Your task to perform on an android device: change timer sound Image 0: 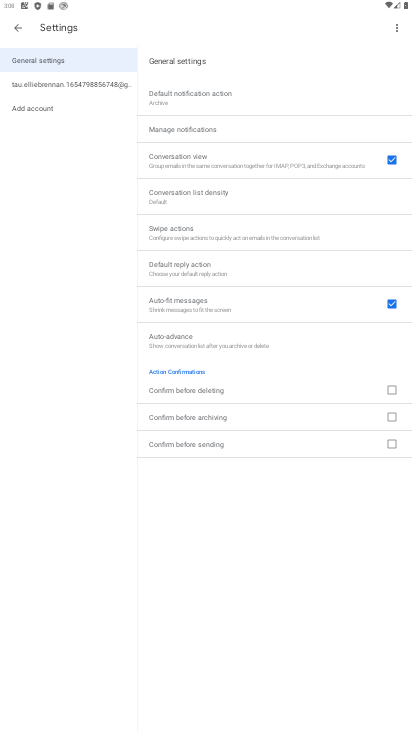
Step 0: press home button
Your task to perform on an android device: change timer sound Image 1: 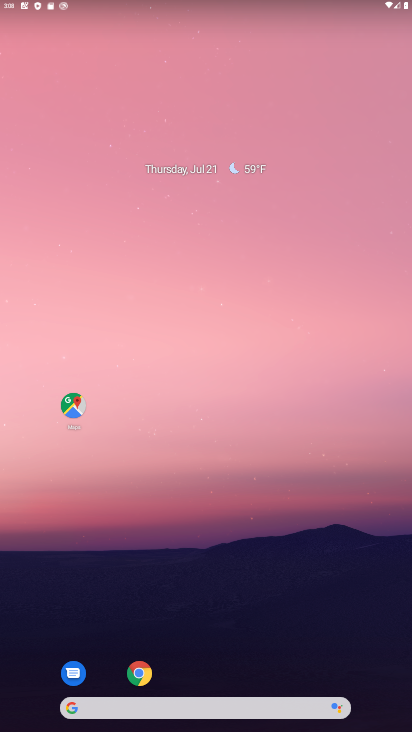
Step 1: drag from (380, 674) to (348, 112)
Your task to perform on an android device: change timer sound Image 2: 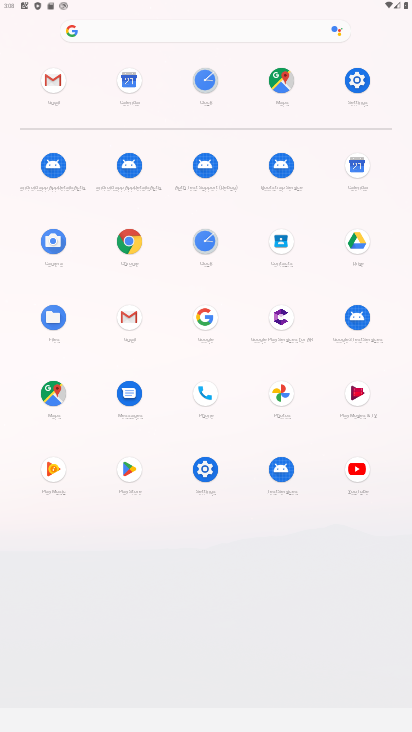
Step 2: click (201, 238)
Your task to perform on an android device: change timer sound Image 3: 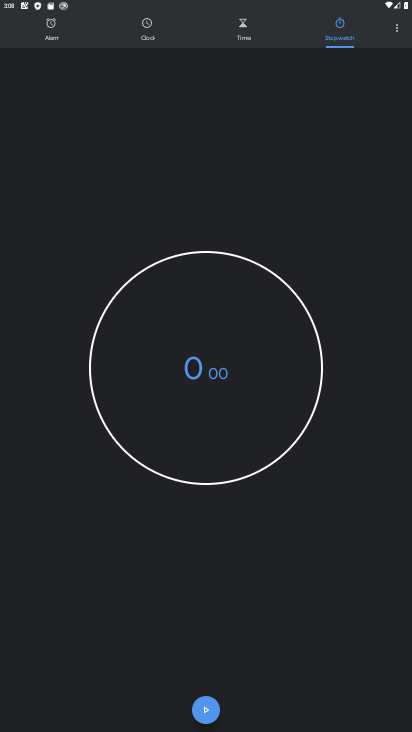
Step 3: click (396, 33)
Your task to perform on an android device: change timer sound Image 4: 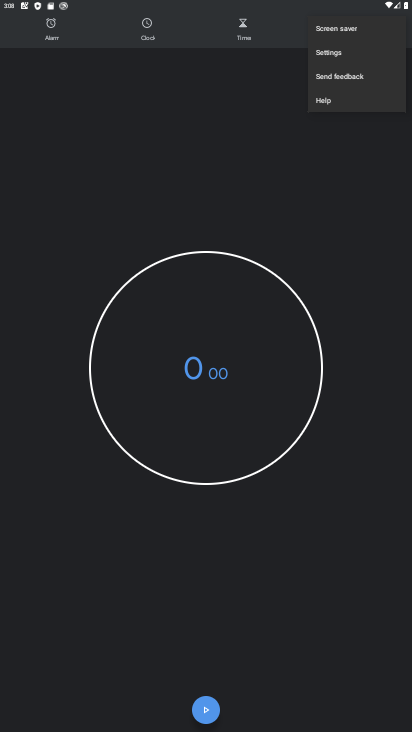
Step 4: click (327, 54)
Your task to perform on an android device: change timer sound Image 5: 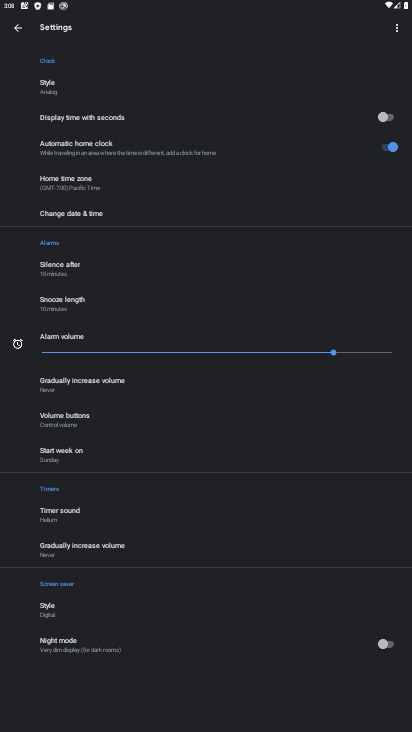
Step 5: click (61, 513)
Your task to perform on an android device: change timer sound Image 6: 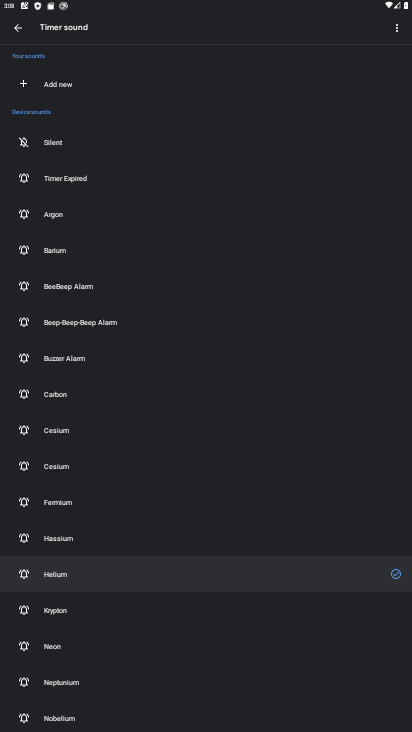
Step 6: click (59, 290)
Your task to perform on an android device: change timer sound Image 7: 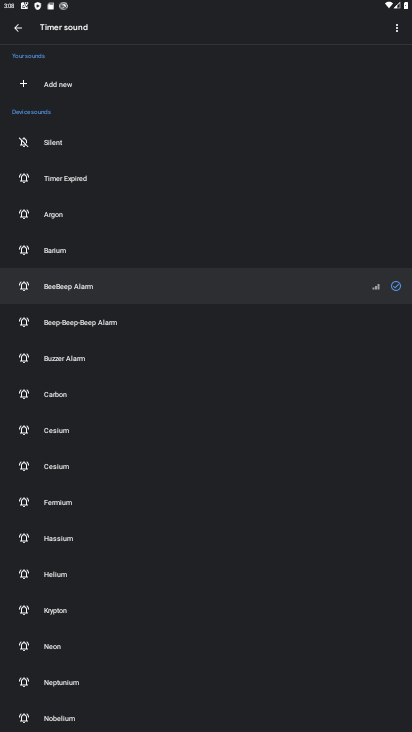
Step 7: task complete